Your task to perform on an android device: turn off location history Image 0: 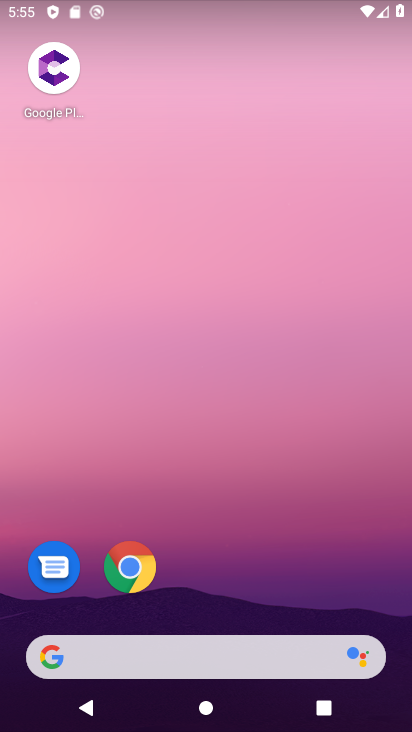
Step 0: drag from (315, 576) to (295, 116)
Your task to perform on an android device: turn off location history Image 1: 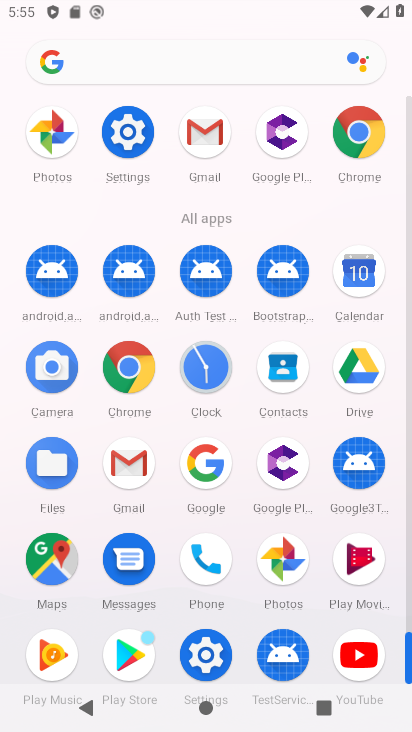
Step 1: click (48, 577)
Your task to perform on an android device: turn off location history Image 2: 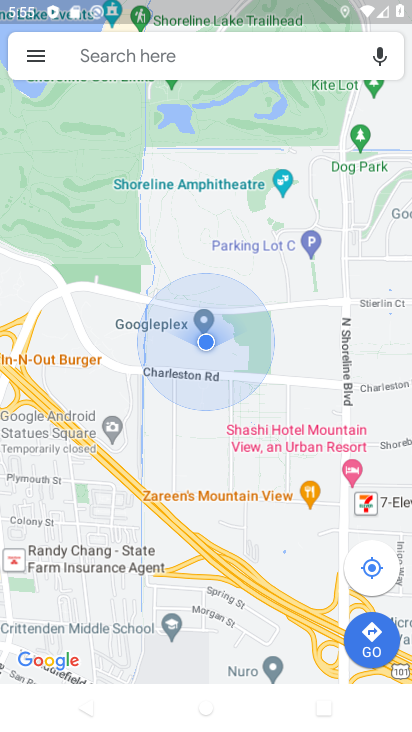
Step 2: click (37, 52)
Your task to perform on an android device: turn off location history Image 3: 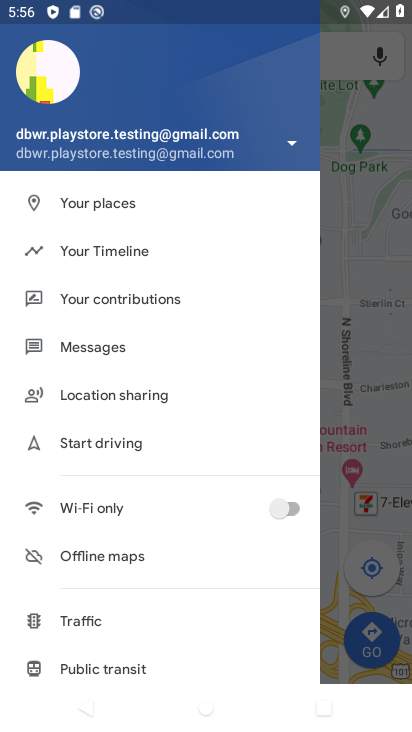
Step 3: click (92, 246)
Your task to perform on an android device: turn off location history Image 4: 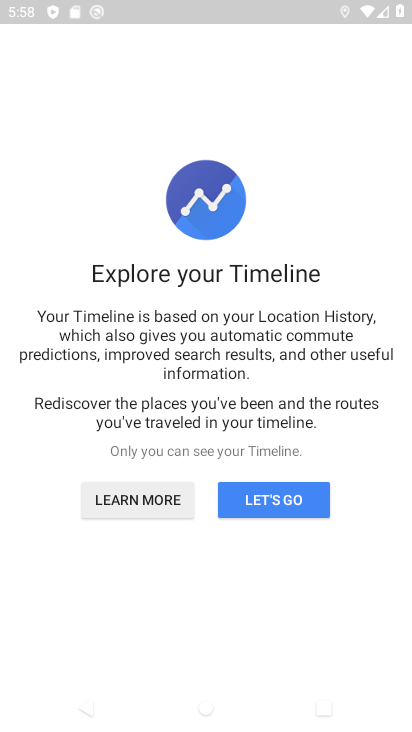
Step 4: click (267, 509)
Your task to perform on an android device: turn off location history Image 5: 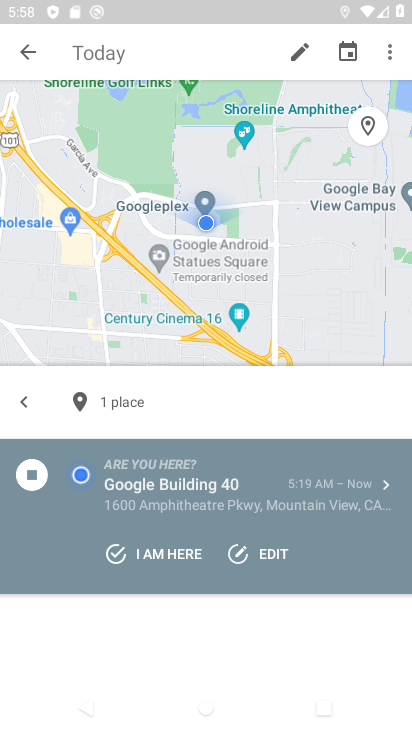
Step 5: click (395, 47)
Your task to perform on an android device: turn off location history Image 6: 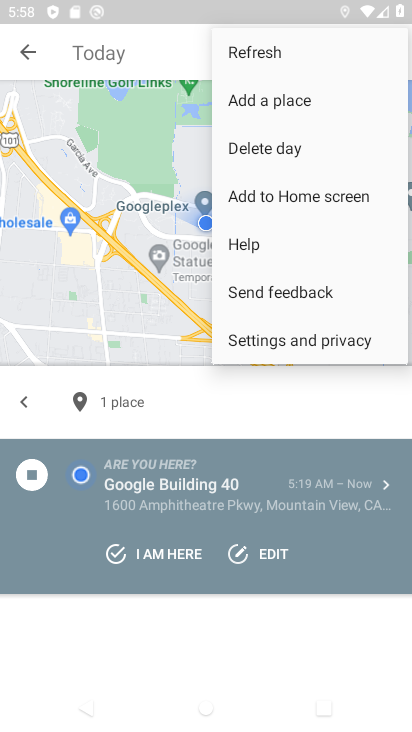
Step 6: click (298, 337)
Your task to perform on an android device: turn off location history Image 7: 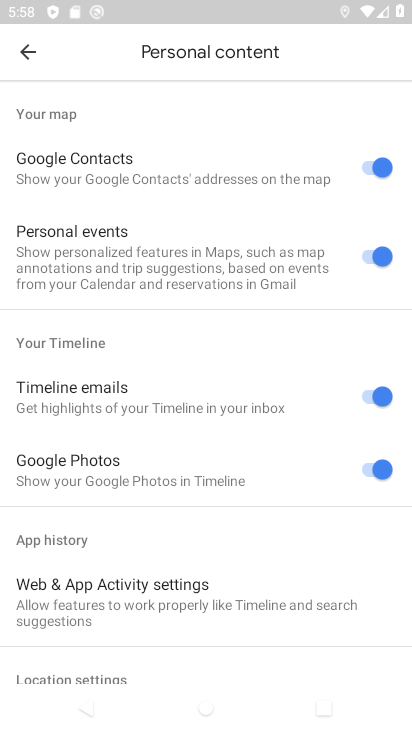
Step 7: drag from (221, 582) to (163, 196)
Your task to perform on an android device: turn off location history Image 8: 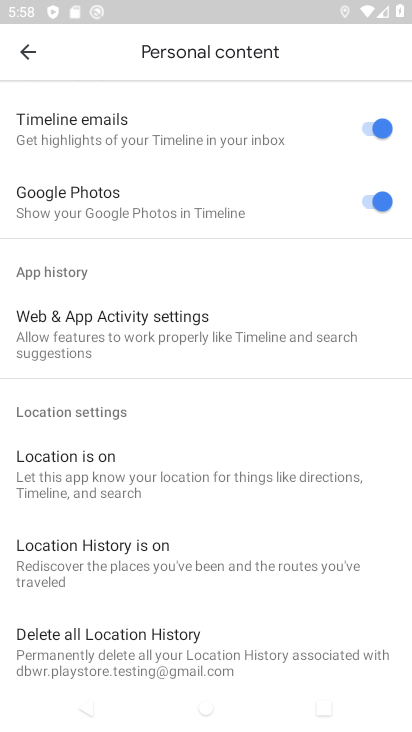
Step 8: click (185, 551)
Your task to perform on an android device: turn off location history Image 9: 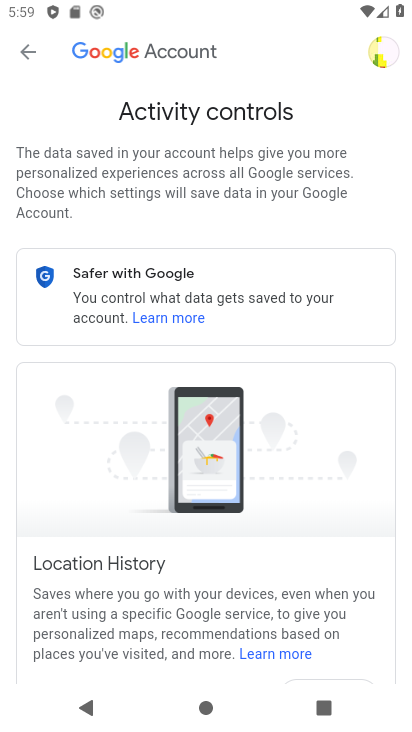
Step 9: drag from (172, 623) to (76, 9)
Your task to perform on an android device: turn off location history Image 10: 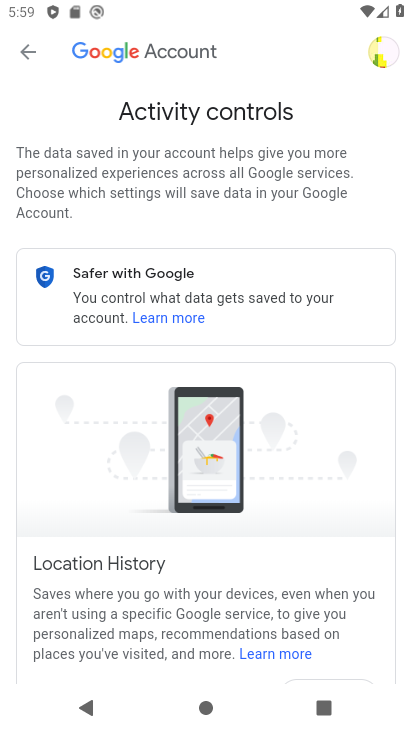
Step 10: drag from (192, 577) to (115, 78)
Your task to perform on an android device: turn off location history Image 11: 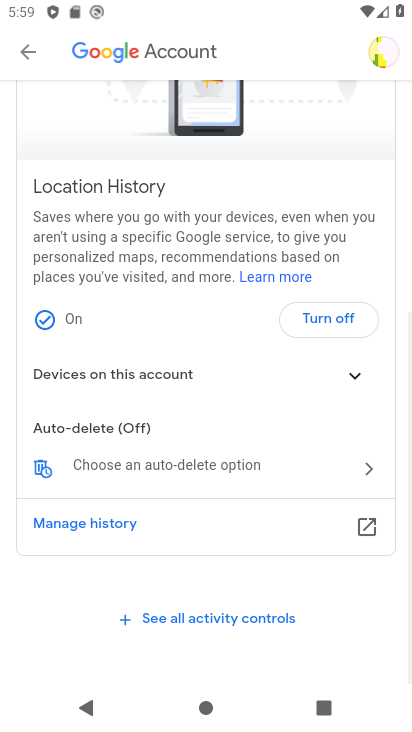
Step 11: drag from (187, 478) to (146, 224)
Your task to perform on an android device: turn off location history Image 12: 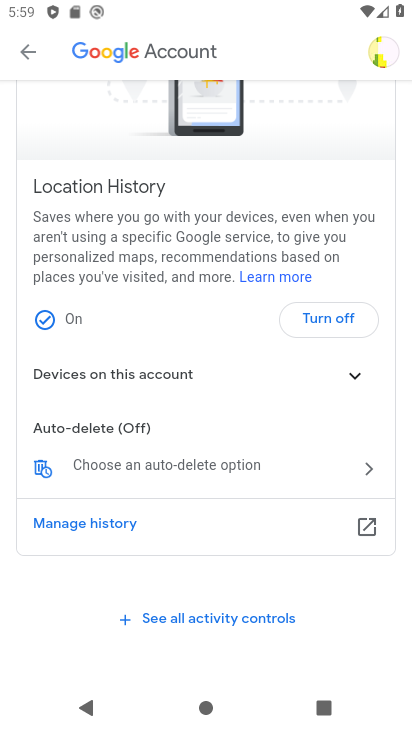
Step 12: click (341, 308)
Your task to perform on an android device: turn off location history Image 13: 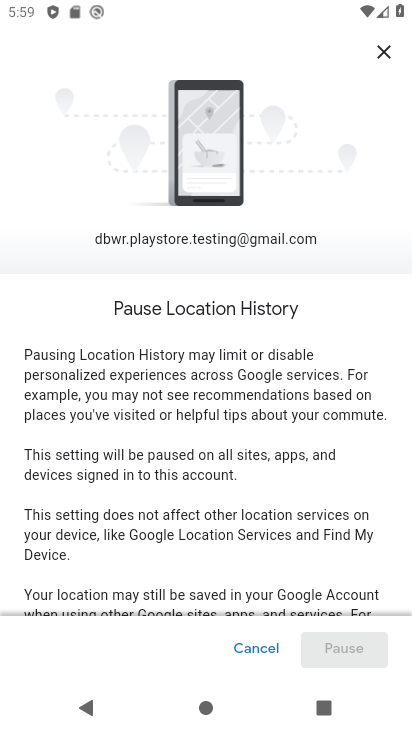
Step 13: drag from (300, 565) to (304, 124)
Your task to perform on an android device: turn off location history Image 14: 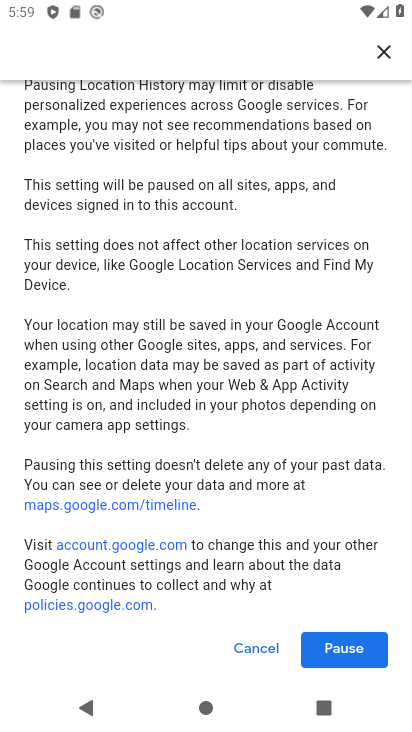
Step 14: drag from (280, 510) to (230, 351)
Your task to perform on an android device: turn off location history Image 15: 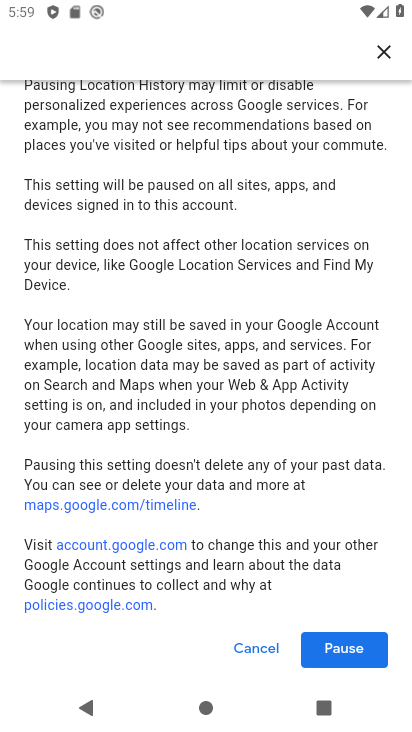
Step 15: click (319, 662)
Your task to perform on an android device: turn off location history Image 16: 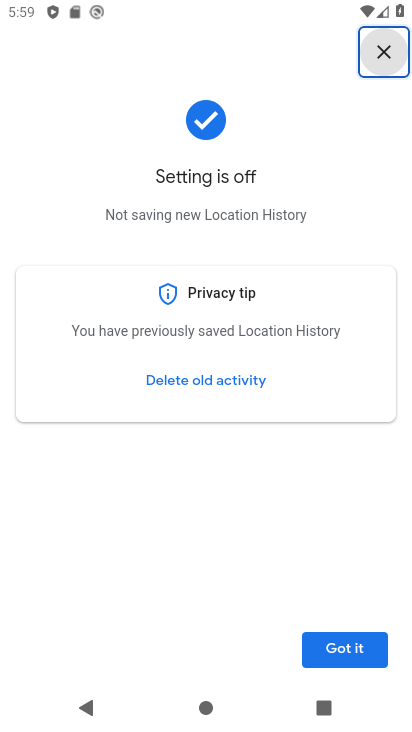
Step 16: click (335, 645)
Your task to perform on an android device: turn off location history Image 17: 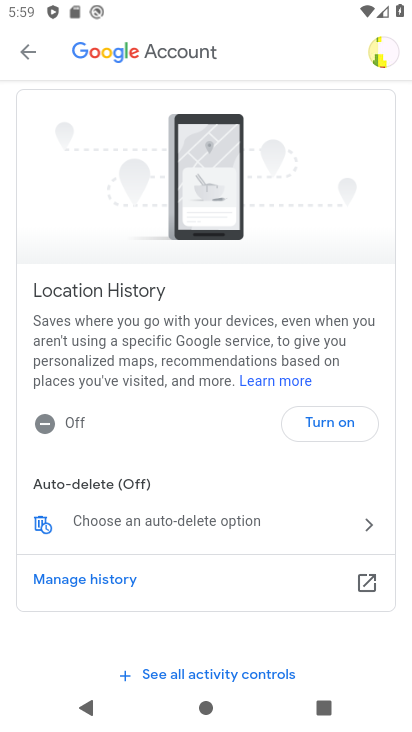
Step 17: task complete